Your task to perform on an android device: Open battery settings Image 0: 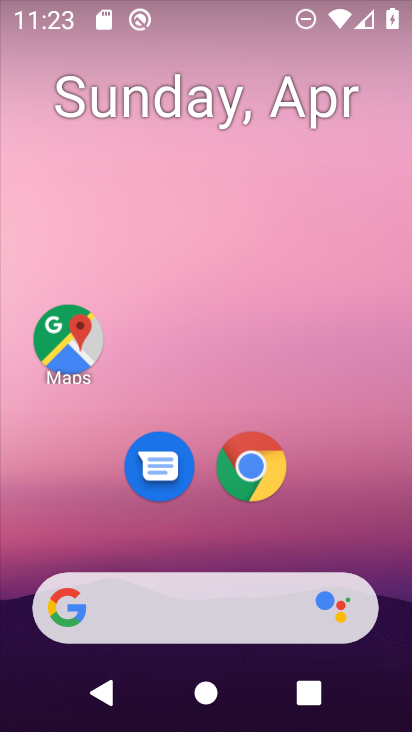
Step 0: drag from (341, 537) to (364, 102)
Your task to perform on an android device: Open battery settings Image 1: 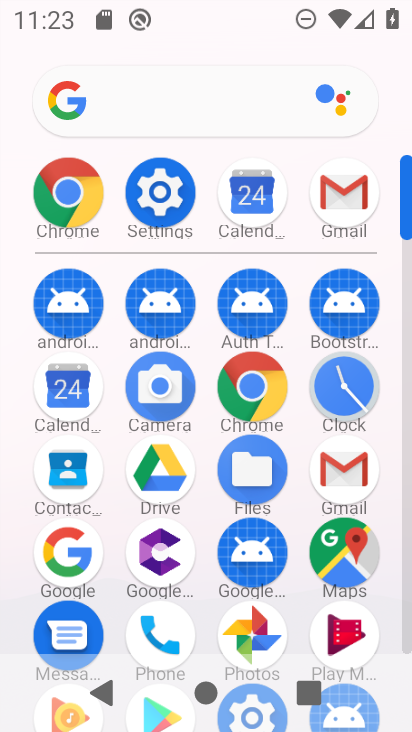
Step 1: click (154, 183)
Your task to perform on an android device: Open battery settings Image 2: 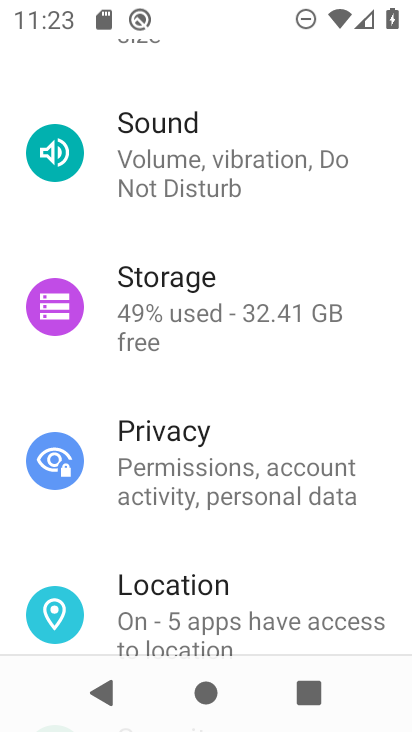
Step 2: drag from (377, 243) to (378, 417)
Your task to perform on an android device: Open battery settings Image 3: 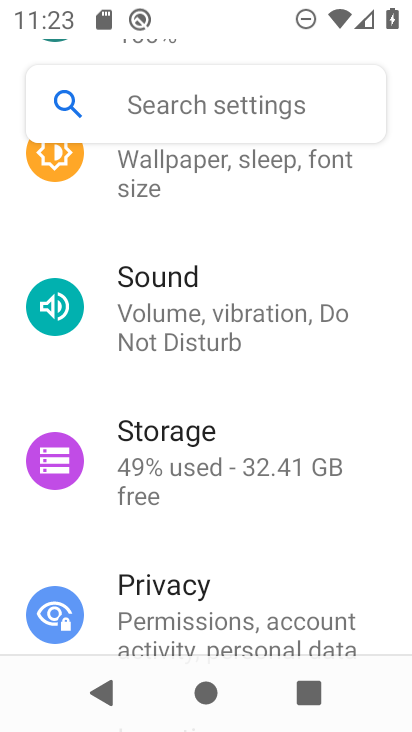
Step 3: drag from (371, 216) to (362, 432)
Your task to perform on an android device: Open battery settings Image 4: 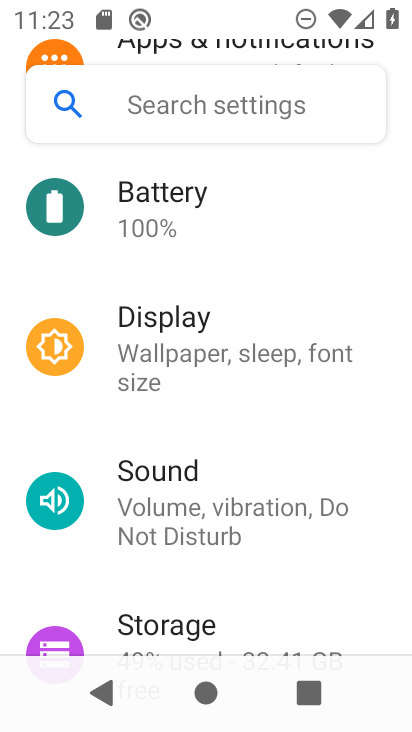
Step 4: drag from (382, 222) to (377, 392)
Your task to perform on an android device: Open battery settings Image 5: 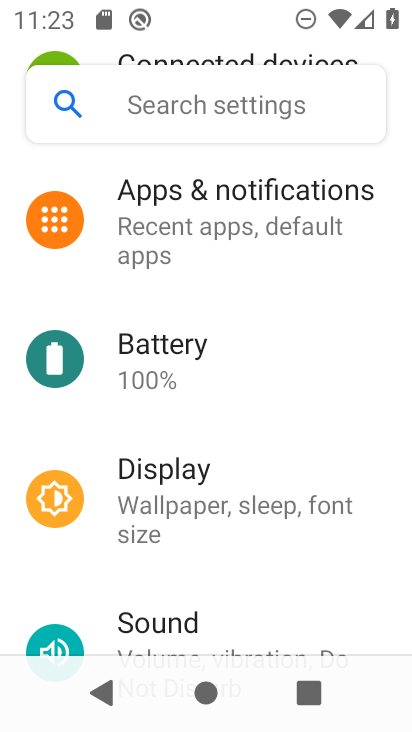
Step 5: drag from (386, 166) to (352, 452)
Your task to perform on an android device: Open battery settings Image 6: 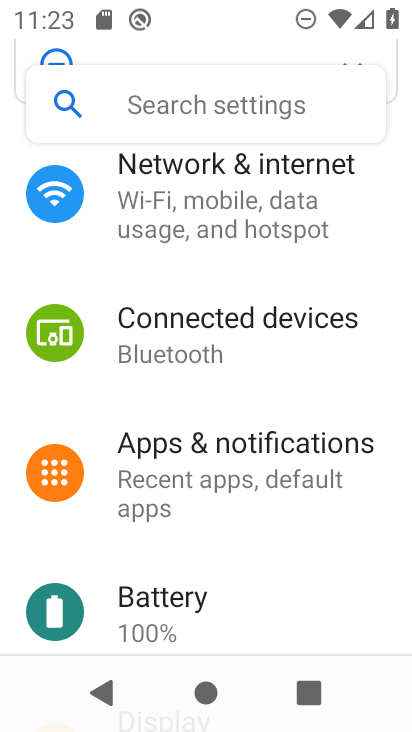
Step 6: drag from (374, 241) to (353, 416)
Your task to perform on an android device: Open battery settings Image 7: 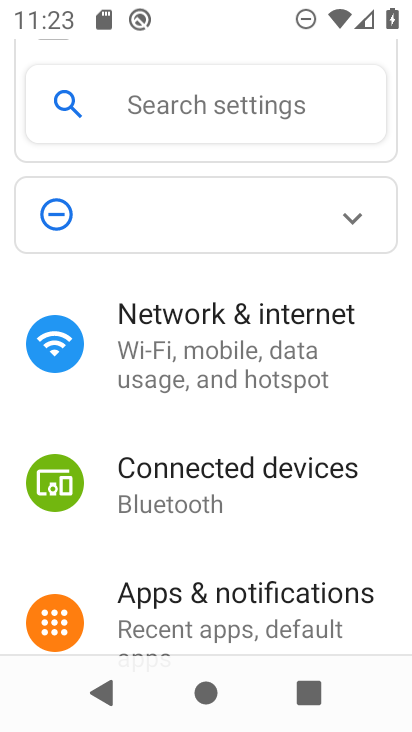
Step 7: drag from (373, 524) to (390, 331)
Your task to perform on an android device: Open battery settings Image 8: 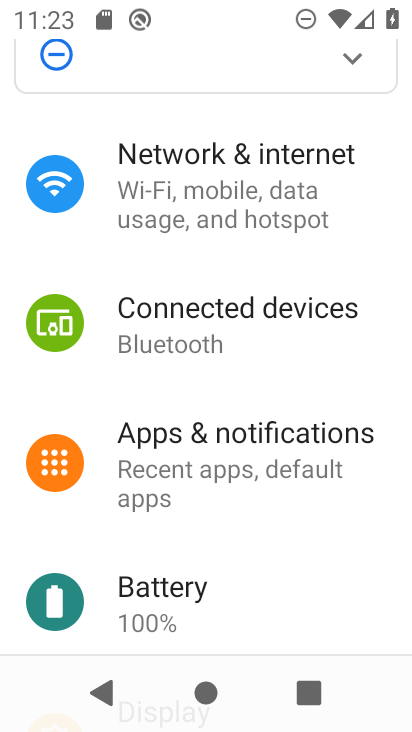
Step 8: drag from (376, 566) to (375, 249)
Your task to perform on an android device: Open battery settings Image 9: 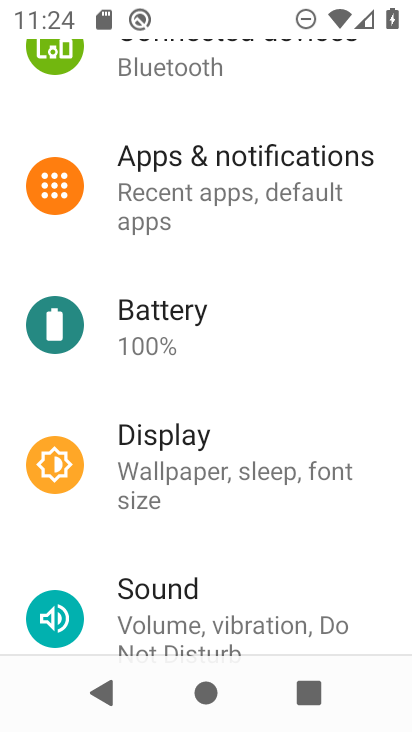
Step 9: click (183, 335)
Your task to perform on an android device: Open battery settings Image 10: 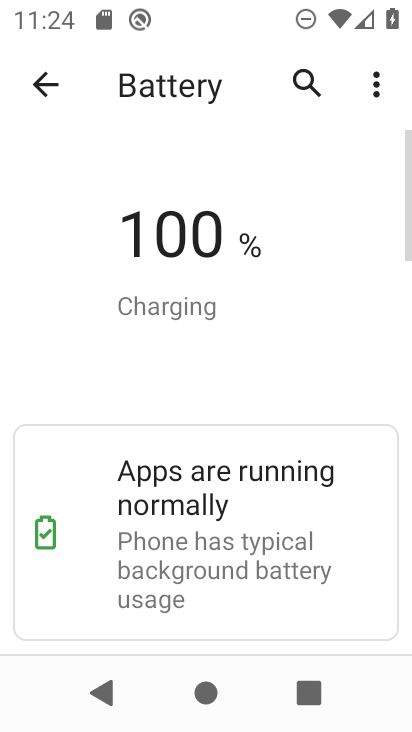
Step 10: task complete